Your task to perform on an android device: Open eBay Image 0: 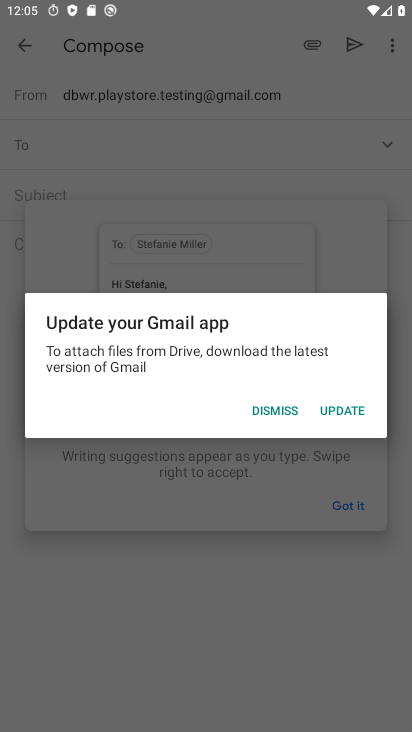
Step 0: press home button
Your task to perform on an android device: Open eBay Image 1: 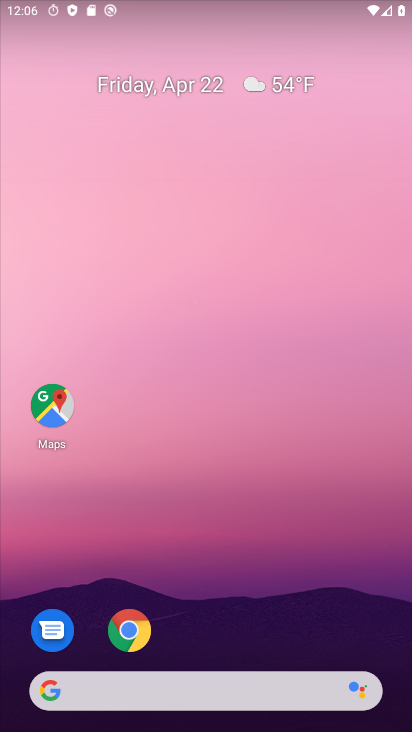
Step 1: click (126, 630)
Your task to perform on an android device: Open eBay Image 2: 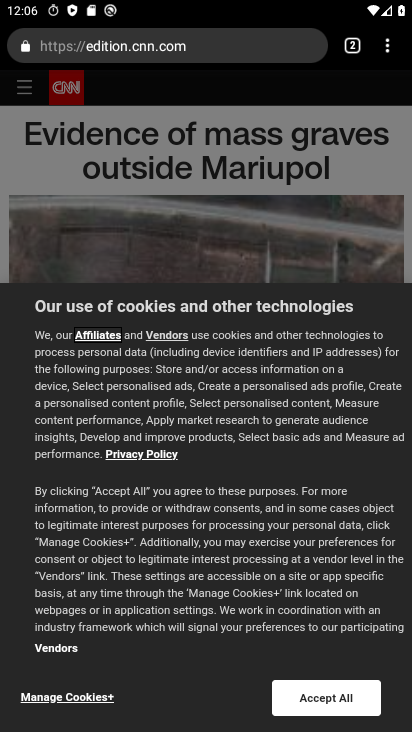
Step 2: click (358, 46)
Your task to perform on an android device: Open eBay Image 3: 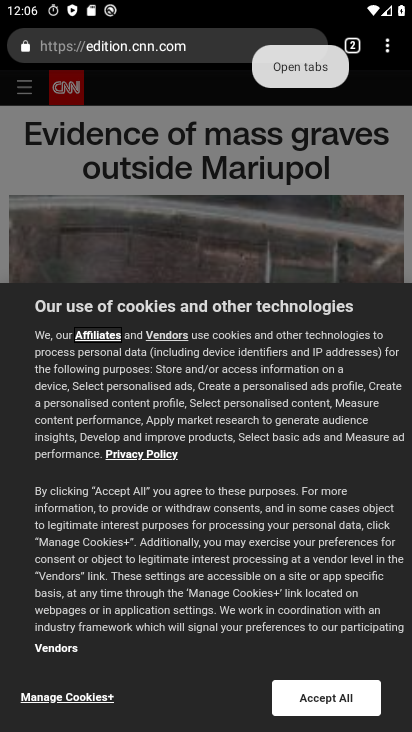
Step 3: click (358, 47)
Your task to perform on an android device: Open eBay Image 4: 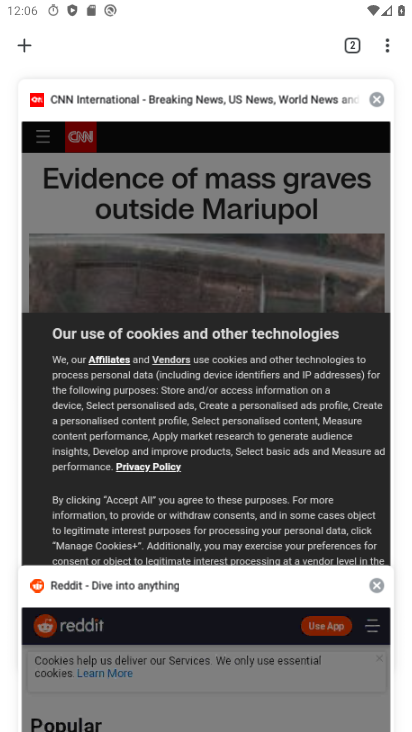
Step 4: click (379, 94)
Your task to perform on an android device: Open eBay Image 5: 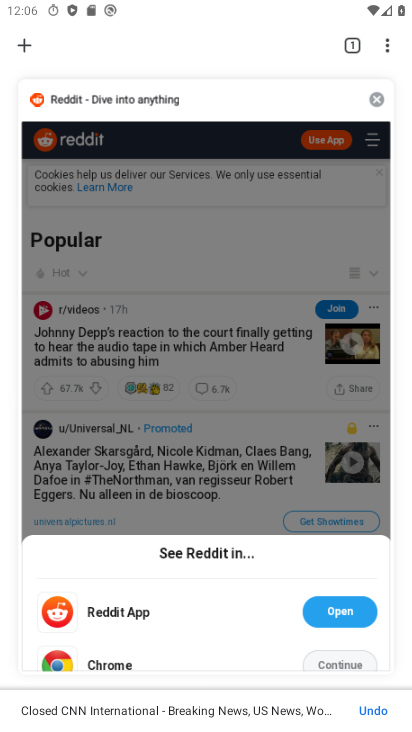
Step 5: click (383, 96)
Your task to perform on an android device: Open eBay Image 6: 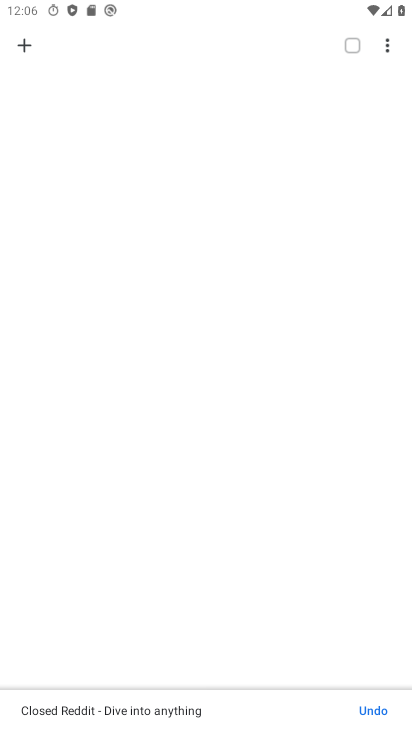
Step 6: click (22, 43)
Your task to perform on an android device: Open eBay Image 7: 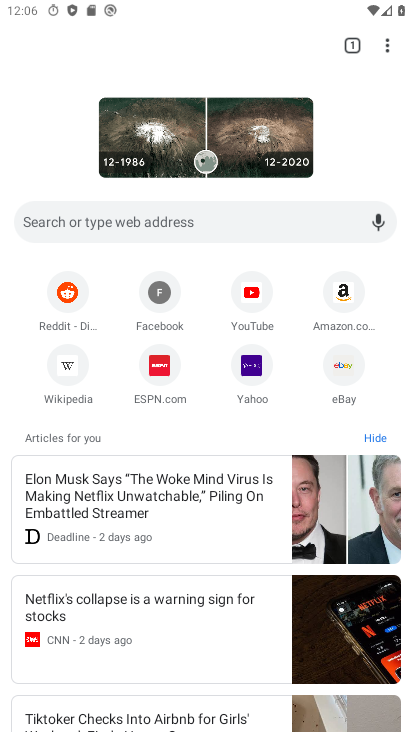
Step 7: click (349, 367)
Your task to perform on an android device: Open eBay Image 8: 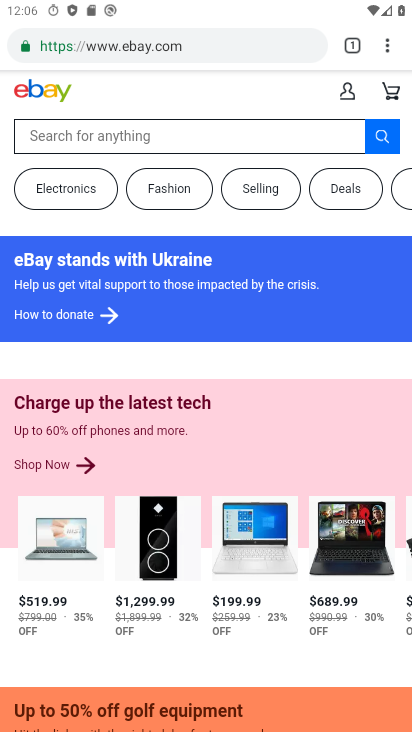
Step 8: task complete